Your task to perform on an android device: Go to battery settings Image 0: 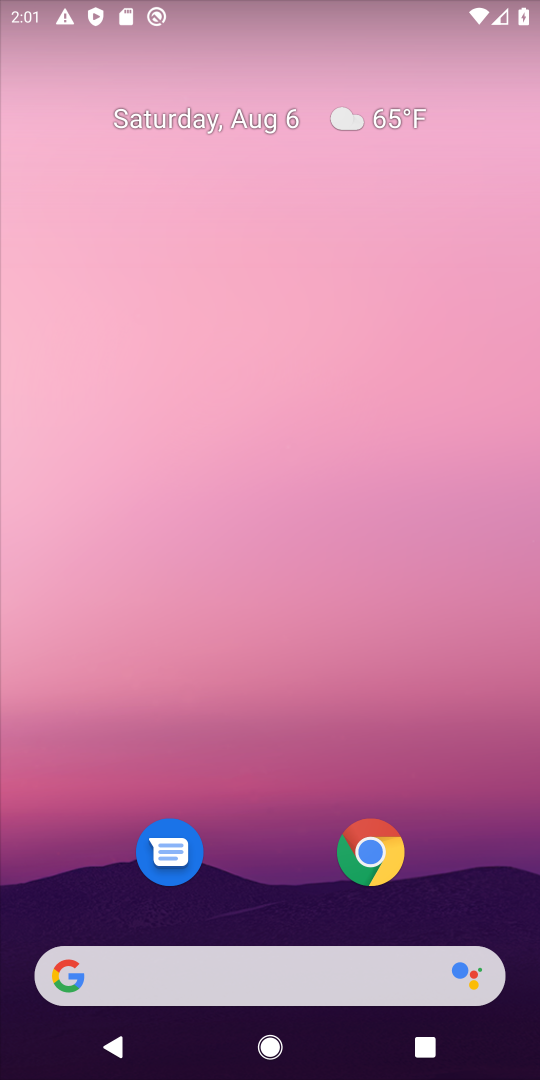
Step 0: drag from (278, 851) to (113, 75)
Your task to perform on an android device: Go to battery settings Image 1: 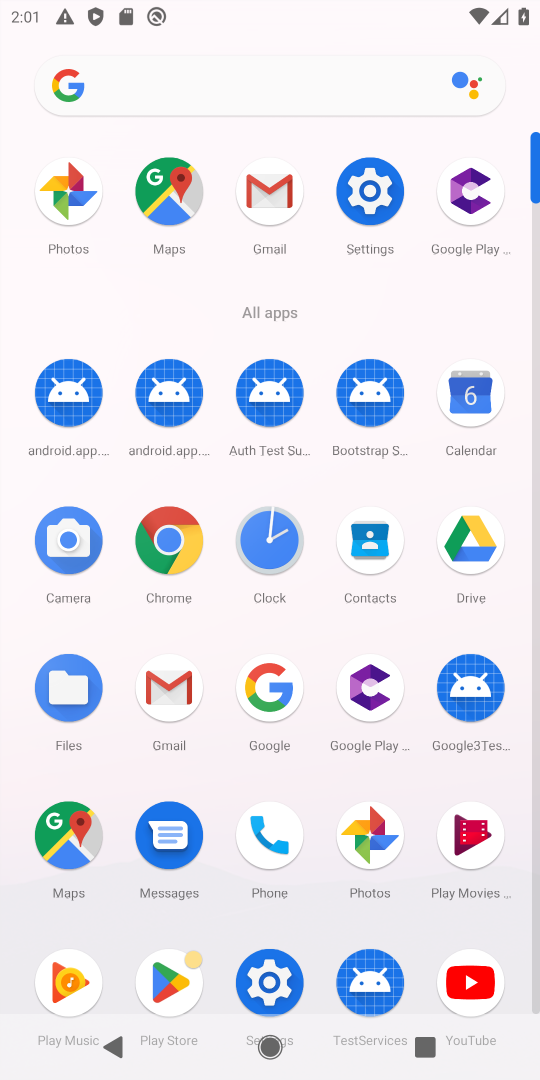
Step 1: click (356, 190)
Your task to perform on an android device: Go to battery settings Image 2: 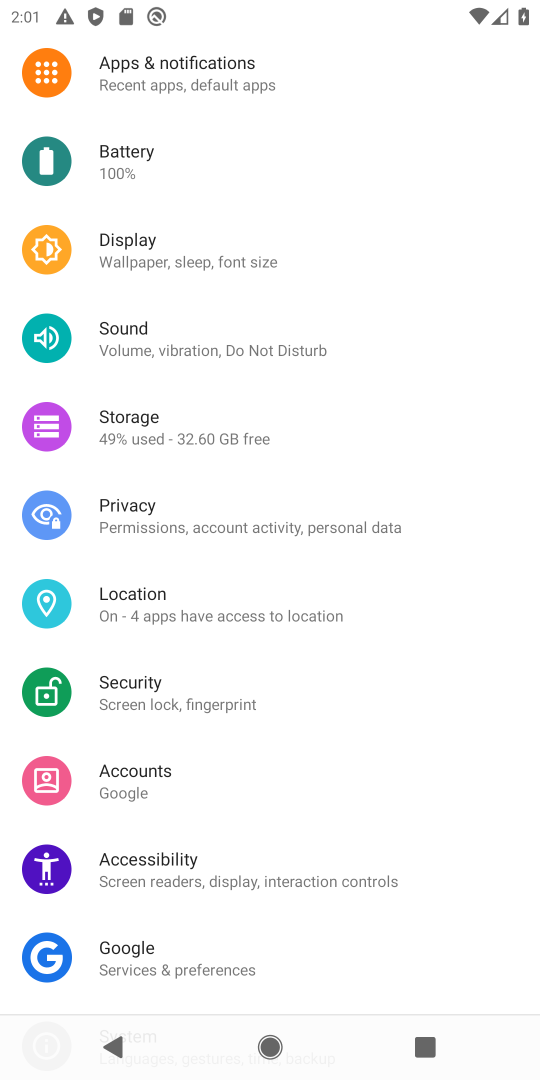
Step 2: click (253, 162)
Your task to perform on an android device: Go to battery settings Image 3: 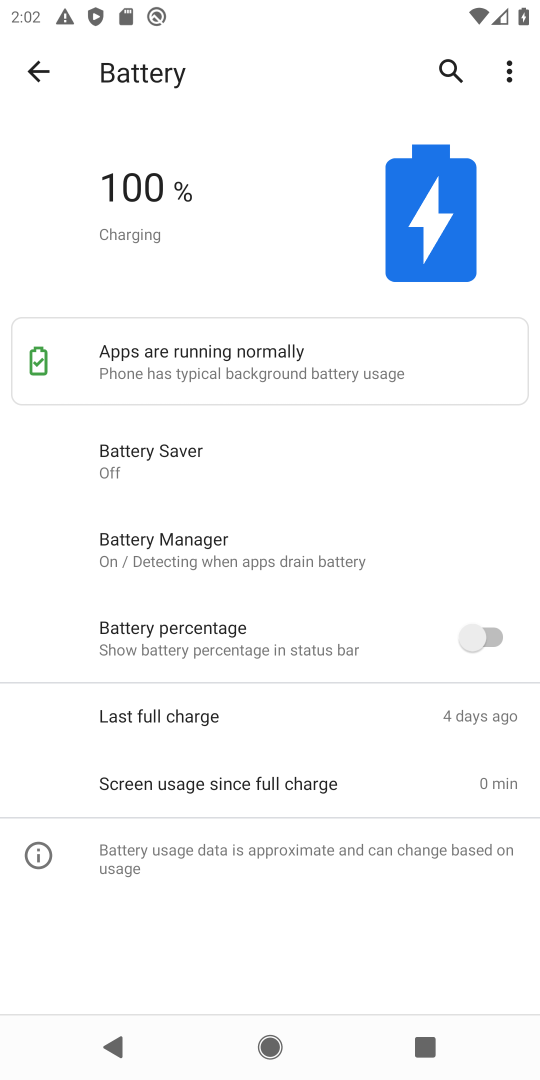
Step 3: task complete